Your task to perform on an android device: Go to sound settings Image 0: 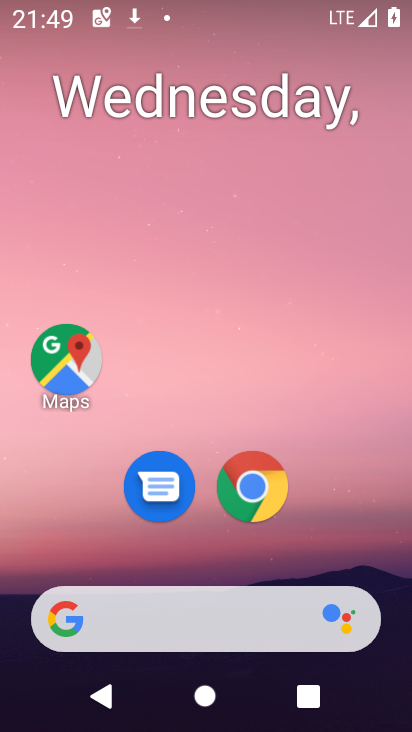
Step 0: drag from (106, 577) to (227, 19)
Your task to perform on an android device: Go to sound settings Image 1: 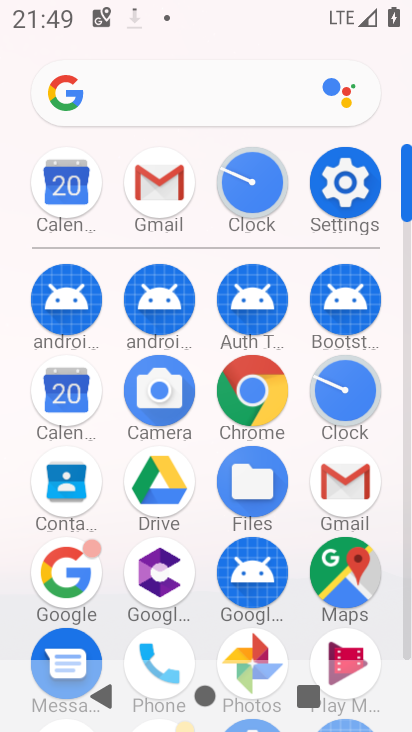
Step 1: click (341, 179)
Your task to perform on an android device: Go to sound settings Image 2: 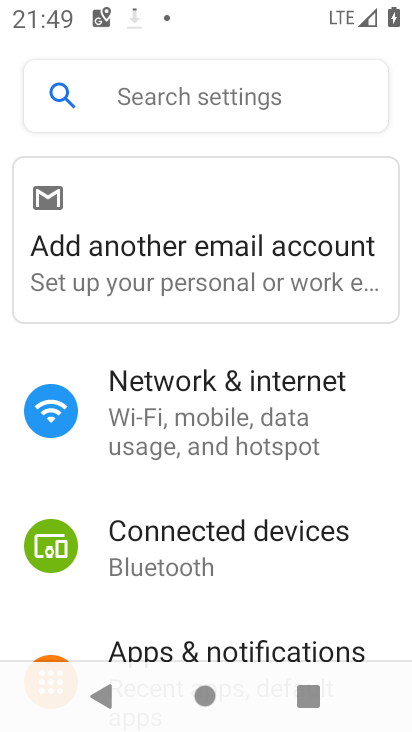
Step 2: drag from (155, 620) to (298, 83)
Your task to perform on an android device: Go to sound settings Image 3: 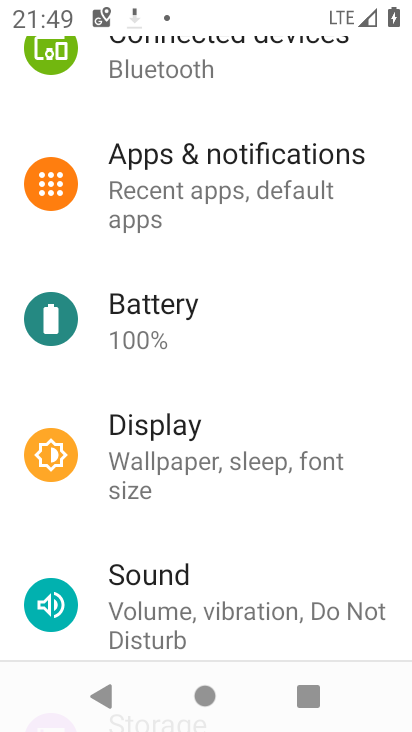
Step 3: click (146, 579)
Your task to perform on an android device: Go to sound settings Image 4: 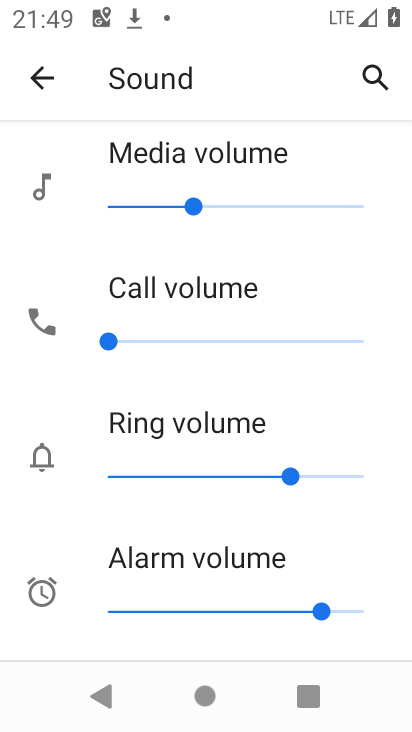
Step 4: task complete